Your task to perform on an android device: Do I have any events this weekend? Image 0: 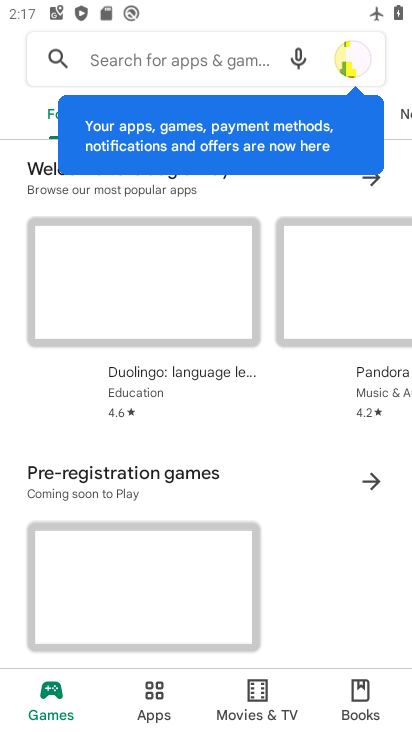
Step 0: press home button
Your task to perform on an android device: Do I have any events this weekend? Image 1: 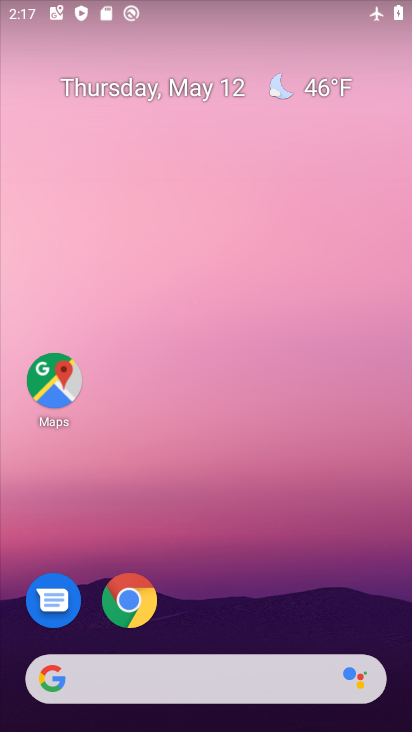
Step 1: drag from (195, 556) to (202, 229)
Your task to perform on an android device: Do I have any events this weekend? Image 2: 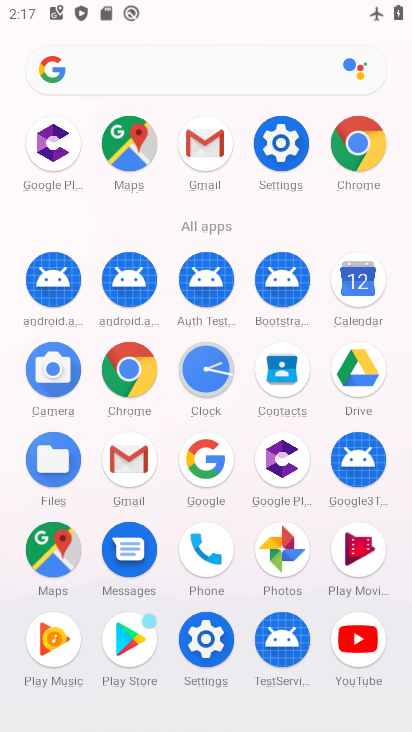
Step 2: click (366, 286)
Your task to perform on an android device: Do I have any events this weekend? Image 3: 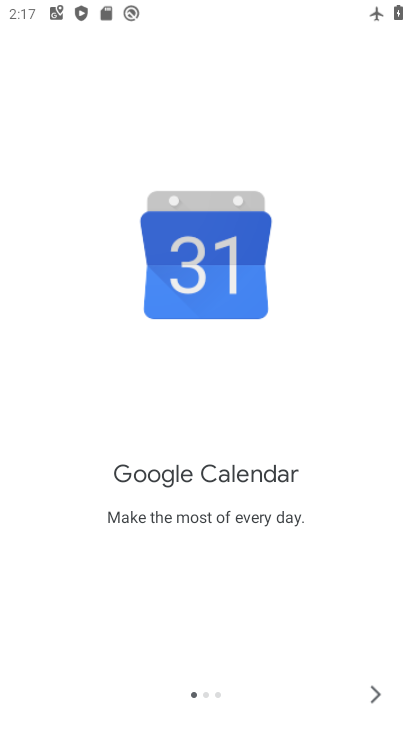
Step 3: click (374, 691)
Your task to perform on an android device: Do I have any events this weekend? Image 4: 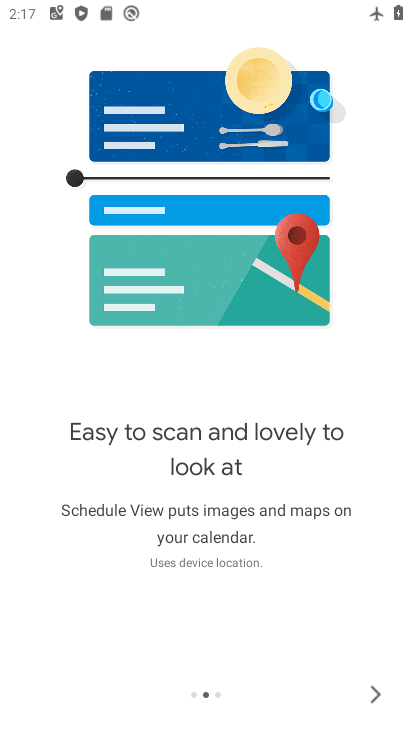
Step 4: click (374, 691)
Your task to perform on an android device: Do I have any events this weekend? Image 5: 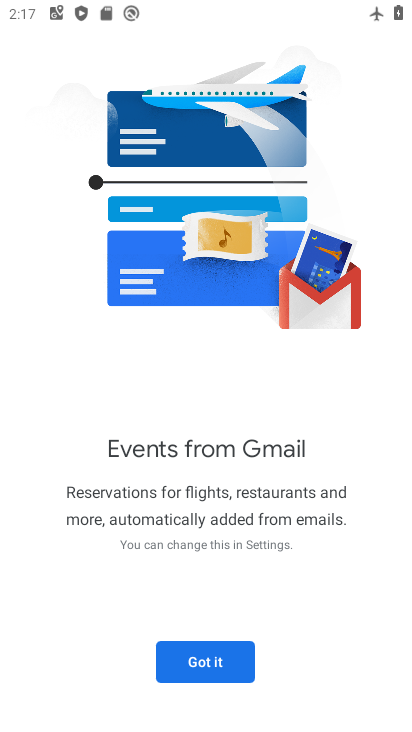
Step 5: click (213, 669)
Your task to perform on an android device: Do I have any events this weekend? Image 6: 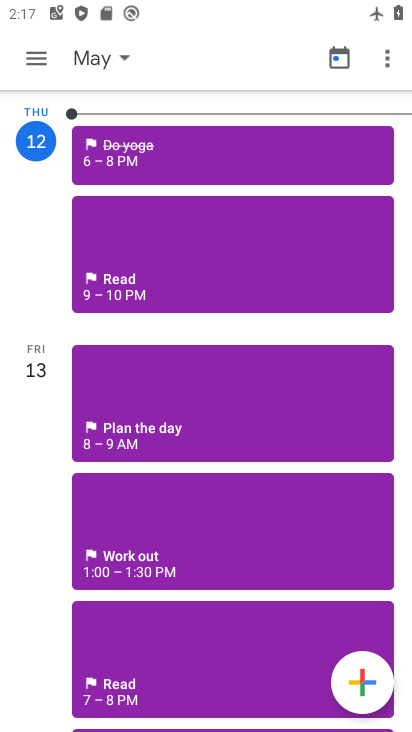
Step 6: click (30, 40)
Your task to perform on an android device: Do I have any events this weekend? Image 7: 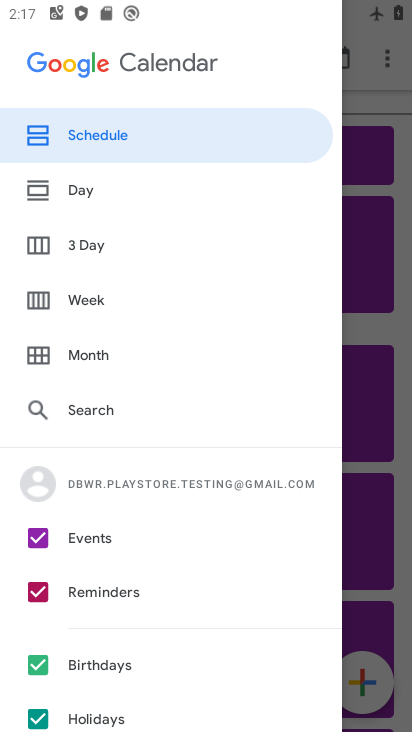
Step 7: click (112, 595)
Your task to perform on an android device: Do I have any events this weekend? Image 8: 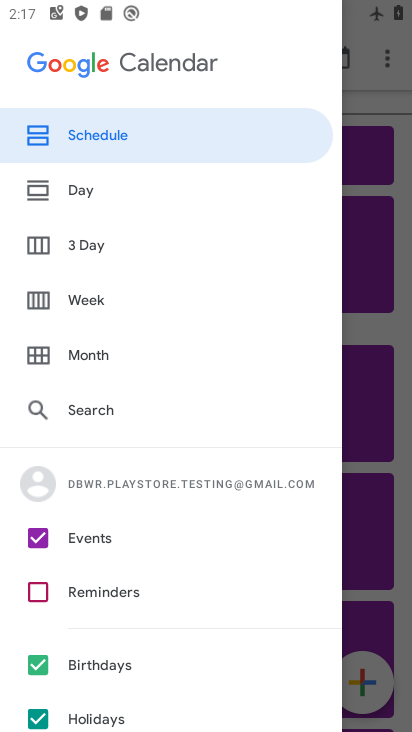
Step 8: drag from (153, 613) to (180, 323)
Your task to perform on an android device: Do I have any events this weekend? Image 9: 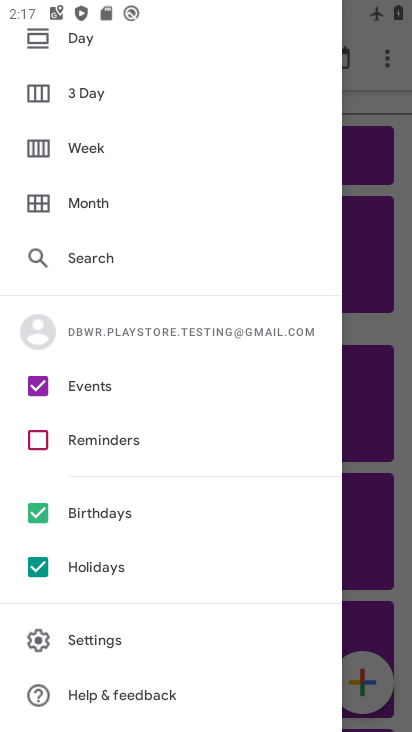
Step 9: click (91, 519)
Your task to perform on an android device: Do I have any events this weekend? Image 10: 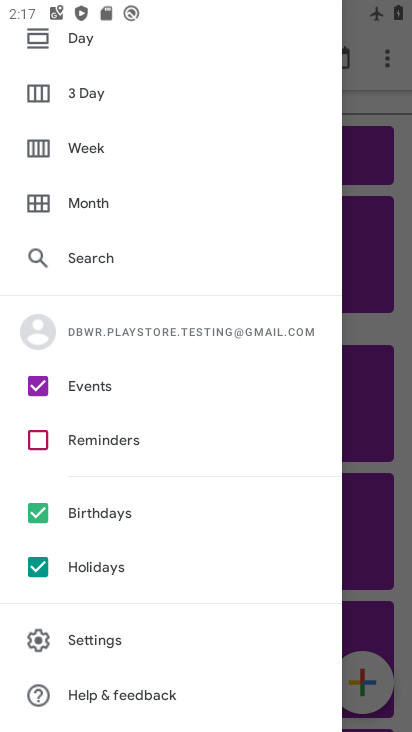
Step 10: click (98, 573)
Your task to perform on an android device: Do I have any events this weekend? Image 11: 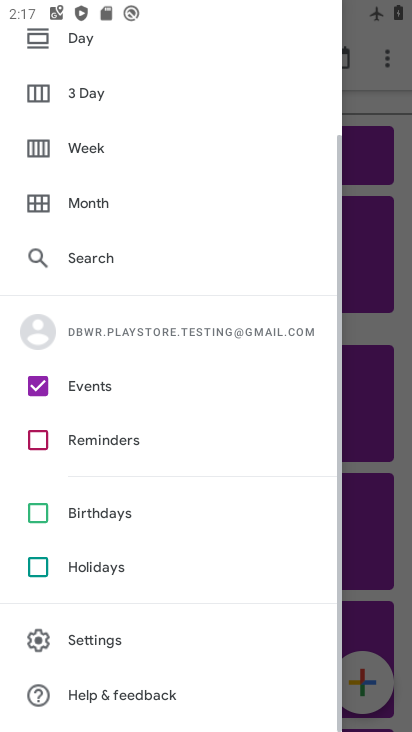
Step 11: drag from (255, 261) to (242, 585)
Your task to perform on an android device: Do I have any events this weekend? Image 12: 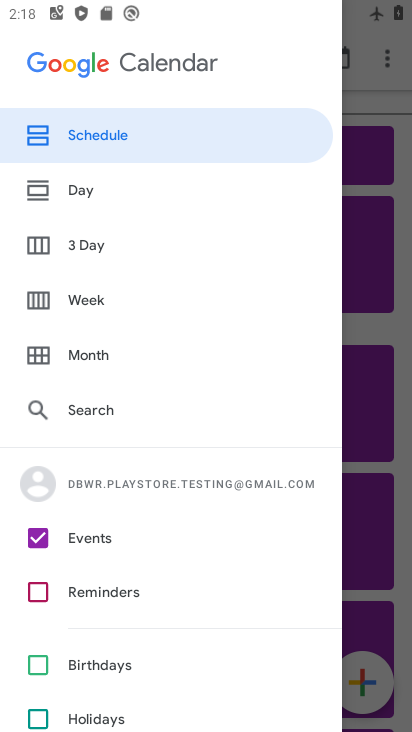
Step 12: click (100, 309)
Your task to perform on an android device: Do I have any events this weekend? Image 13: 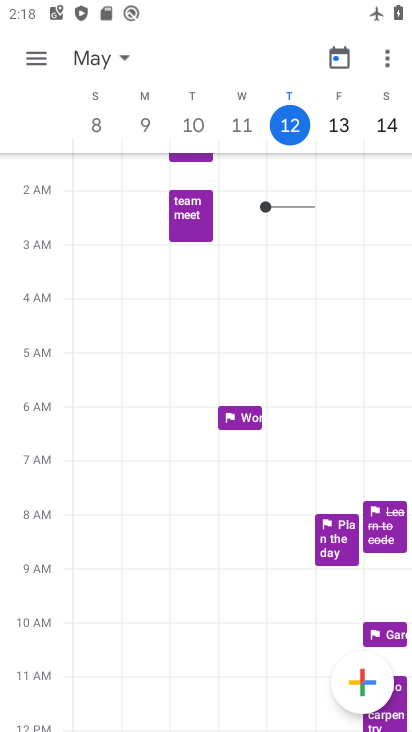
Step 13: task complete